Your task to perform on an android device: choose inbox layout in the gmail app Image 0: 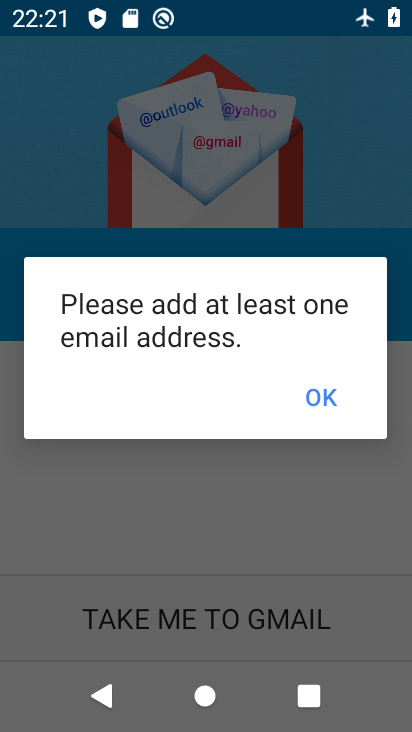
Step 0: press home button
Your task to perform on an android device: choose inbox layout in the gmail app Image 1: 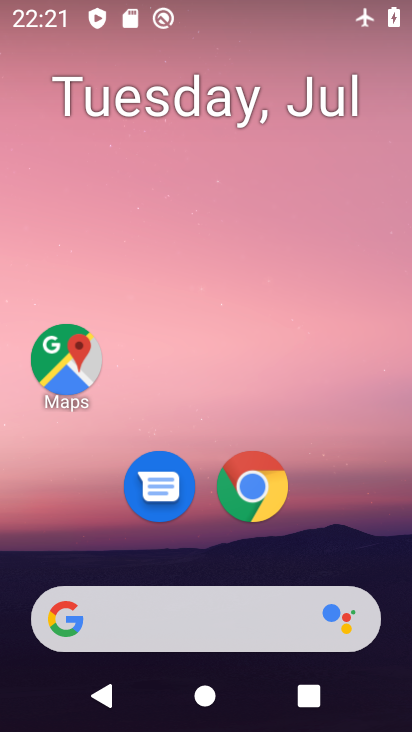
Step 1: drag from (370, 546) to (351, 142)
Your task to perform on an android device: choose inbox layout in the gmail app Image 2: 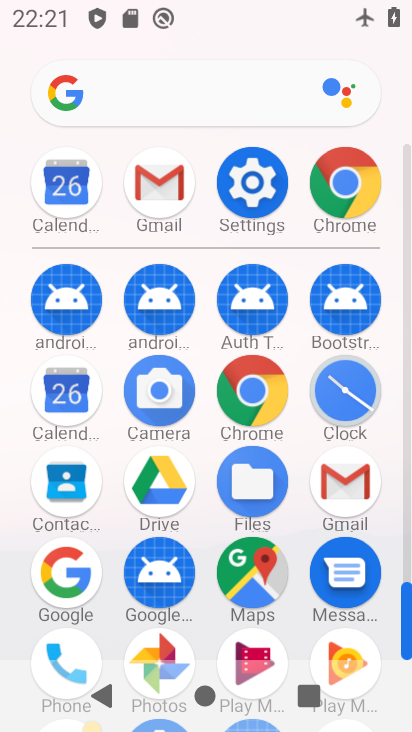
Step 2: click (338, 477)
Your task to perform on an android device: choose inbox layout in the gmail app Image 3: 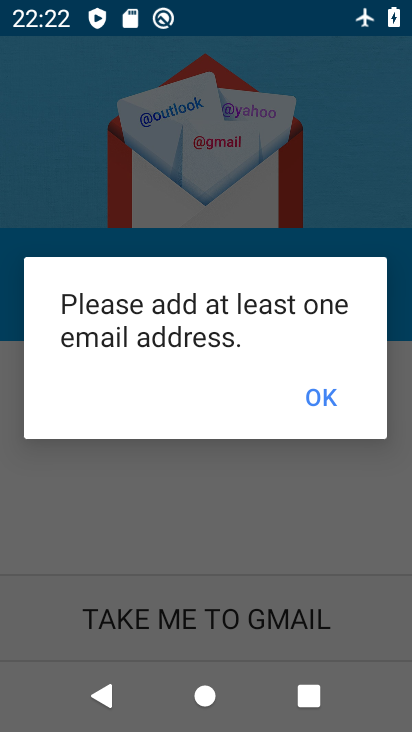
Step 3: task complete